Your task to perform on an android device: turn off notifications in google photos Image 0: 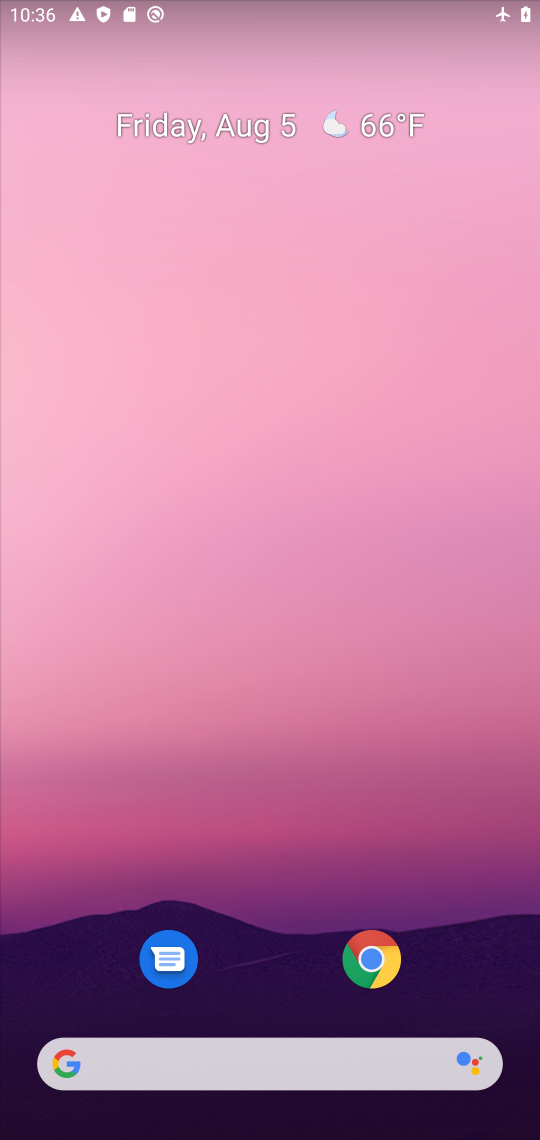
Step 0: drag from (179, 713) to (170, 303)
Your task to perform on an android device: turn off notifications in google photos Image 1: 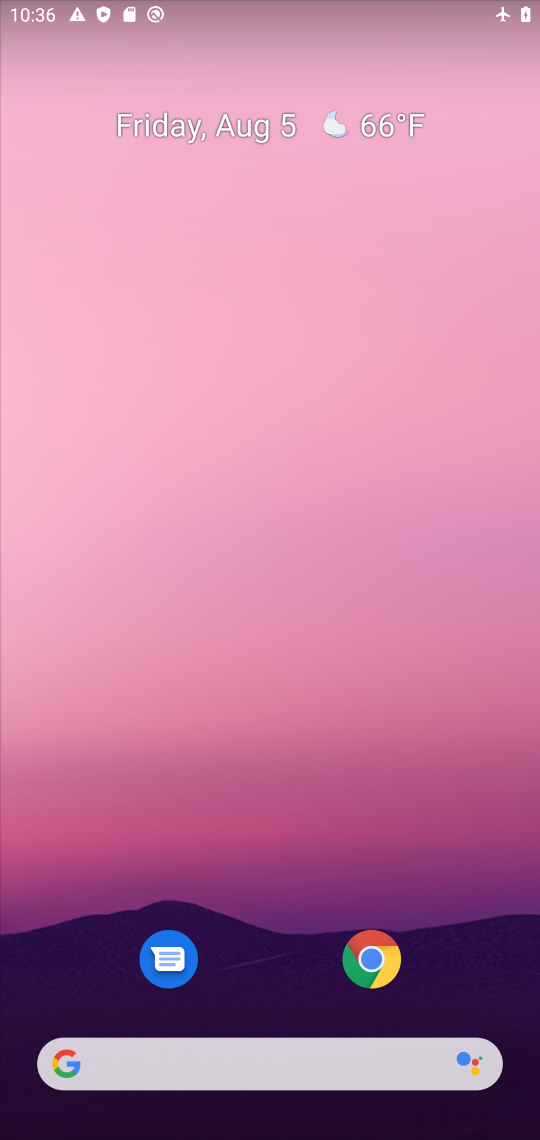
Step 1: drag from (230, 561) to (136, 12)
Your task to perform on an android device: turn off notifications in google photos Image 2: 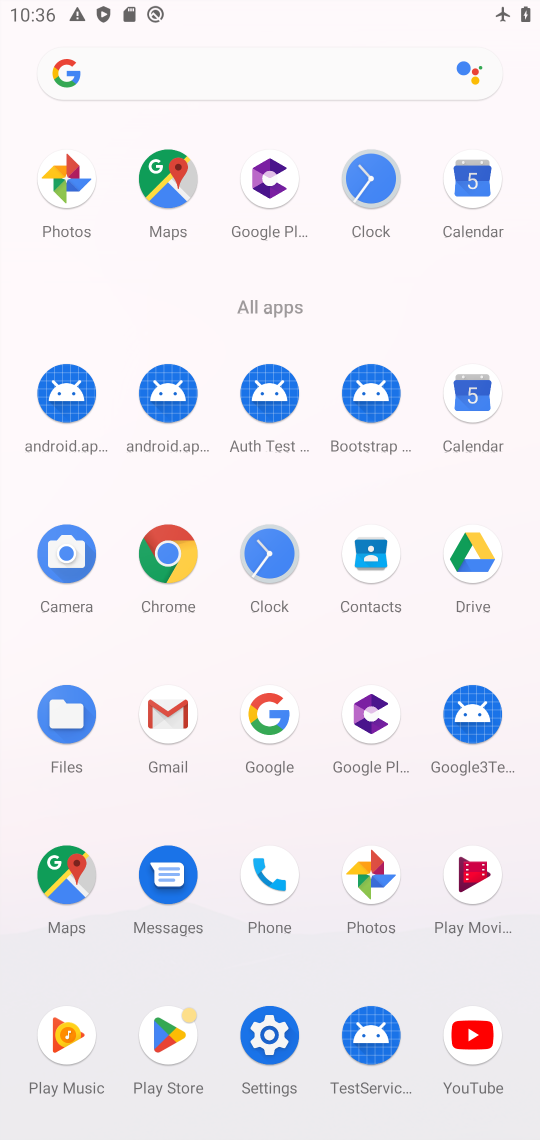
Step 2: click (371, 896)
Your task to perform on an android device: turn off notifications in google photos Image 3: 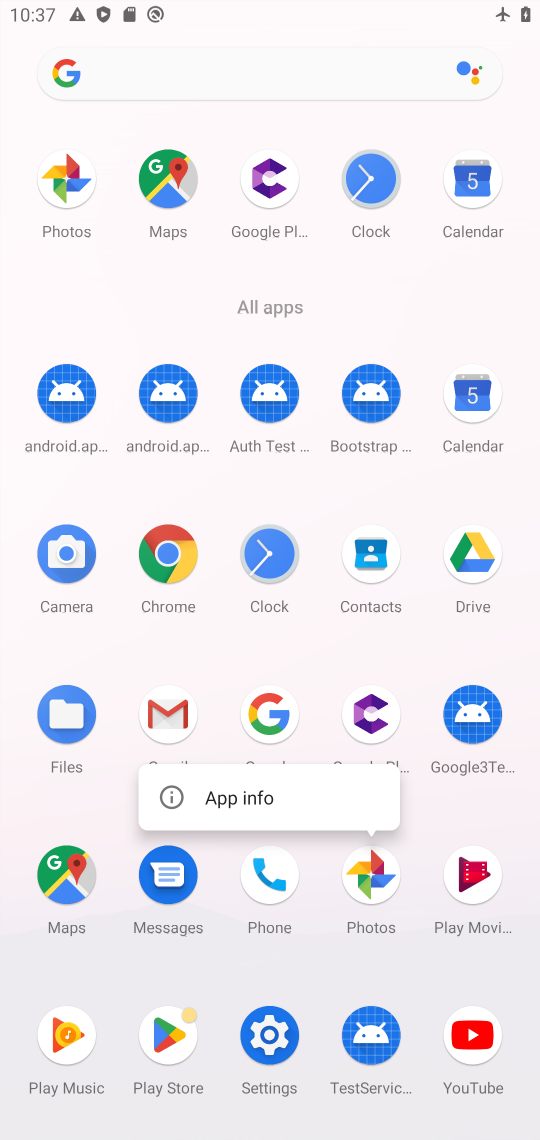
Step 3: click (371, 896)
Your task to perform on an android device: turn off notifications in google photos Image 4: 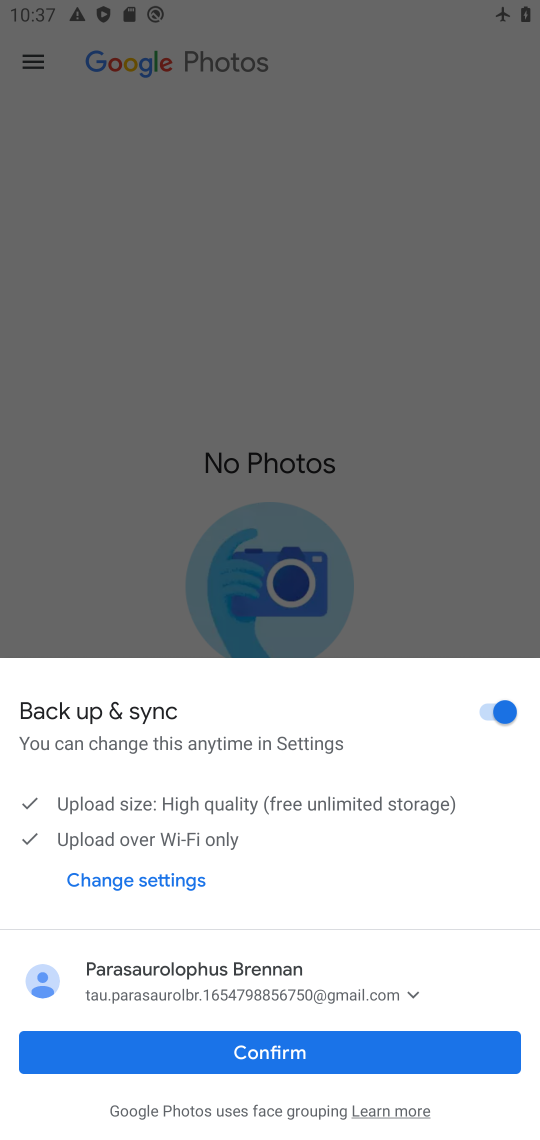
Step 4: click (310, 1051)
Your task to perform on an android device: turn off notifications in google photos Image 5: 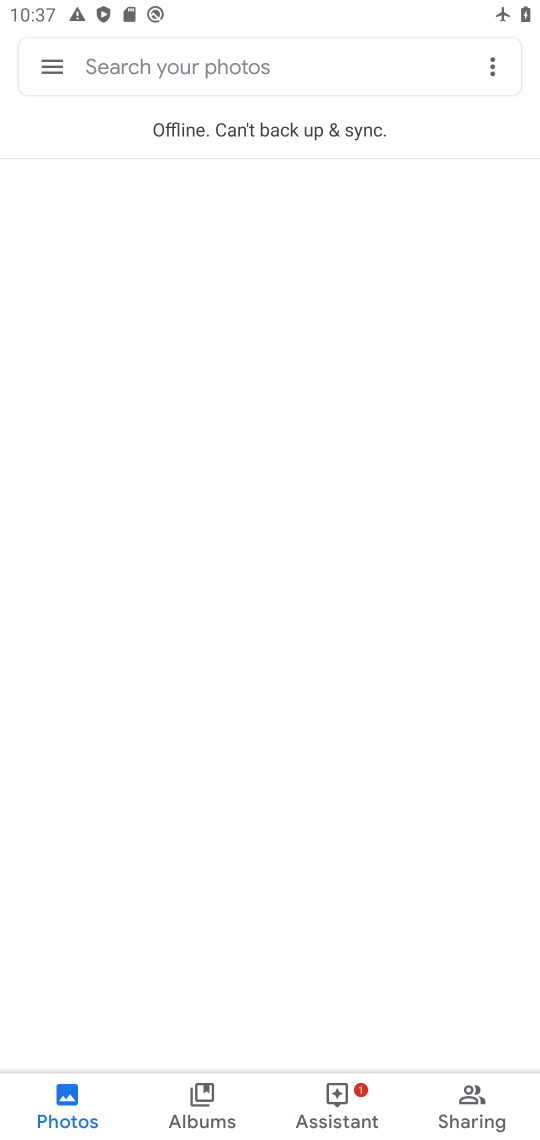
Step 5: click (52, 71)
Your task to perform on an android device: turn off notifications in google photos Image 6: 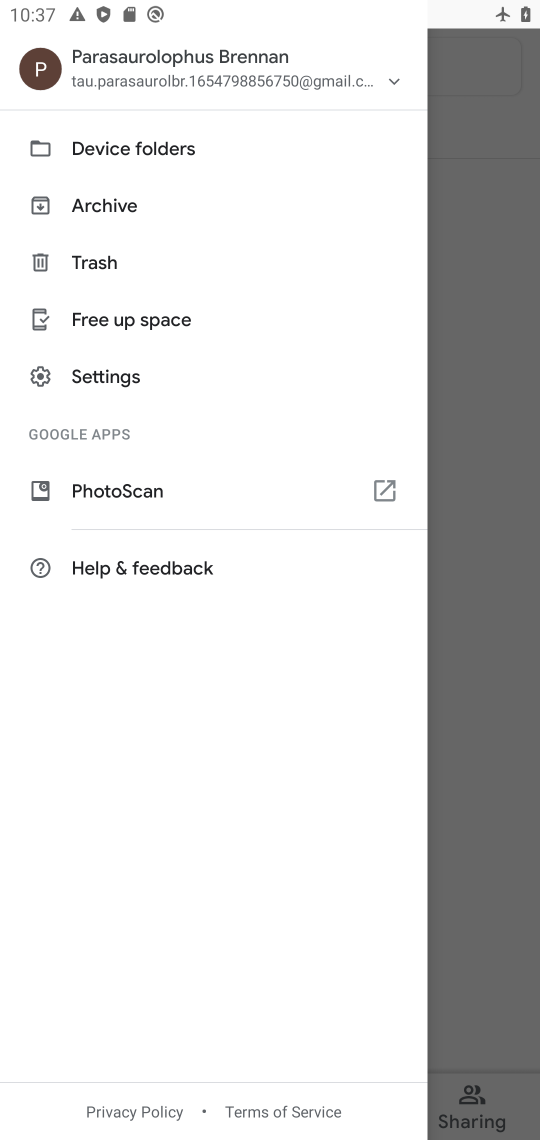
Step 6: click (115, 382)
Your task to perform on an android device: turn off notifications in google photos Image 7: 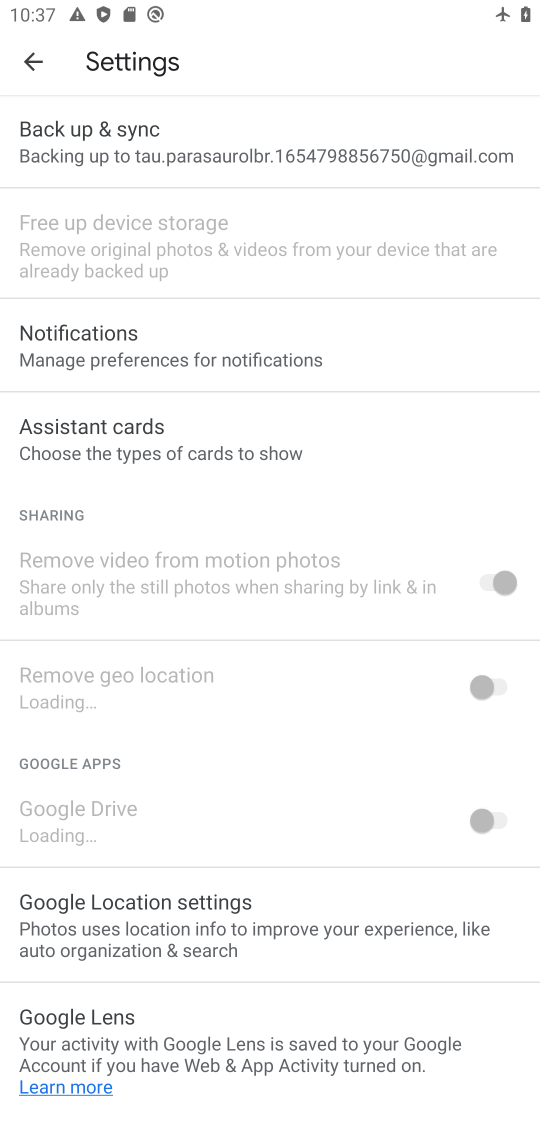
Step 7: click (109, 372)
Your task to perform on an android device: turn off notifications in google photos Image 8: 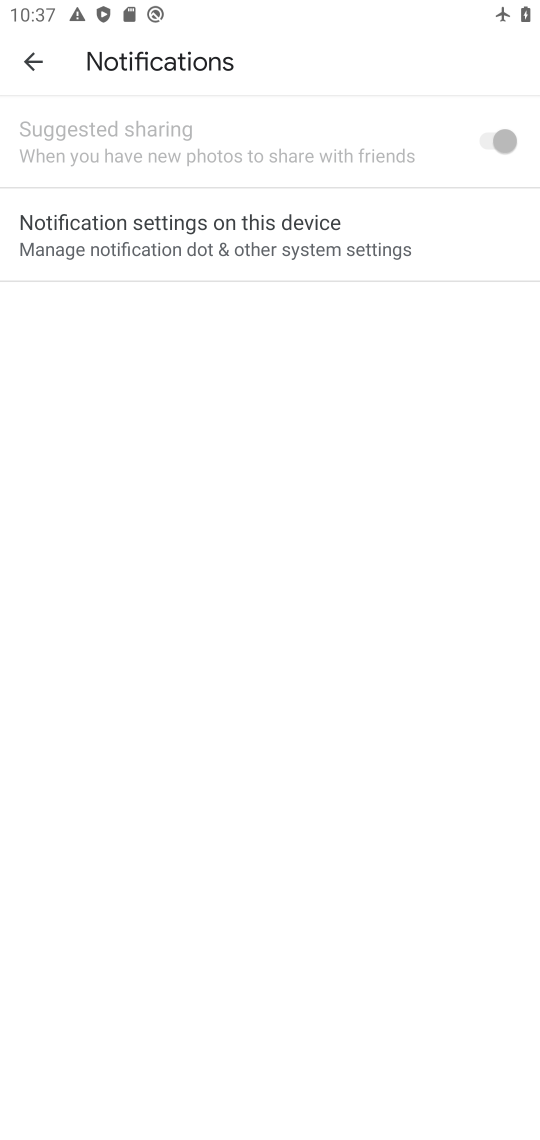
Step 8: click (239, 233)
Your task to perform on an android device: turn off notifications in google photos Image 9: 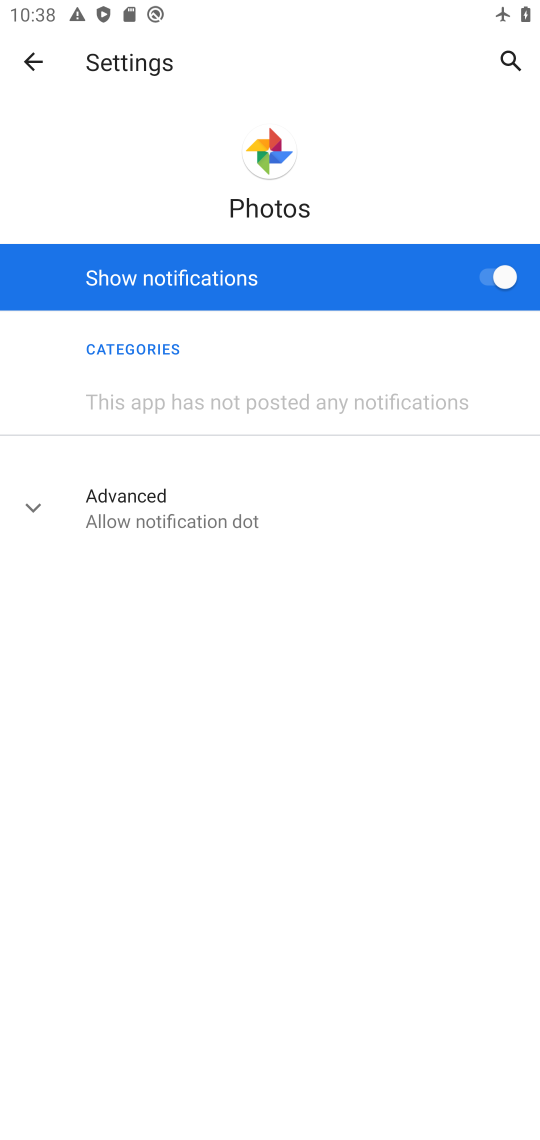
Step 9: click (498, 298)
Your task to perform on an android device: turn off notifications in google photos Image 10: 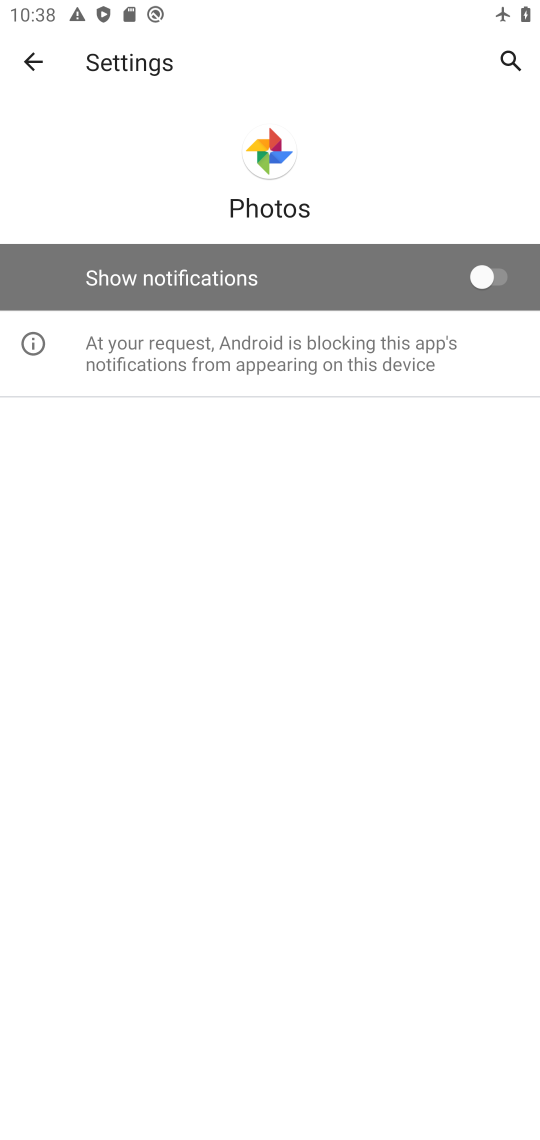
Step 10: task complete